Your task to perform on an android device: turn off smart reply in the gmail app Image 0: 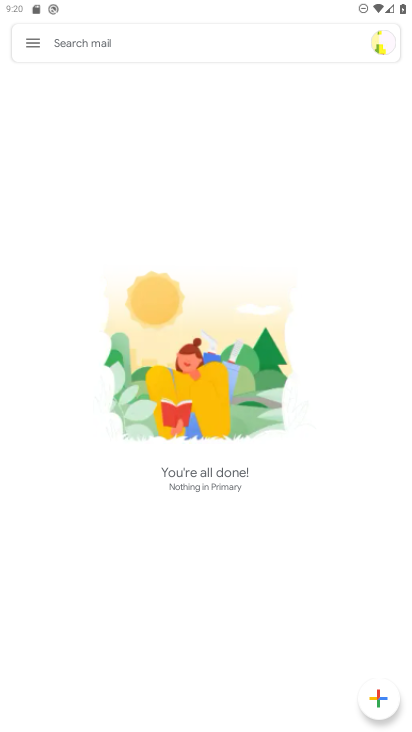
Step 0: press home button
Your task to perform on an android device: turn off smart reply in the gmail app Image 1: 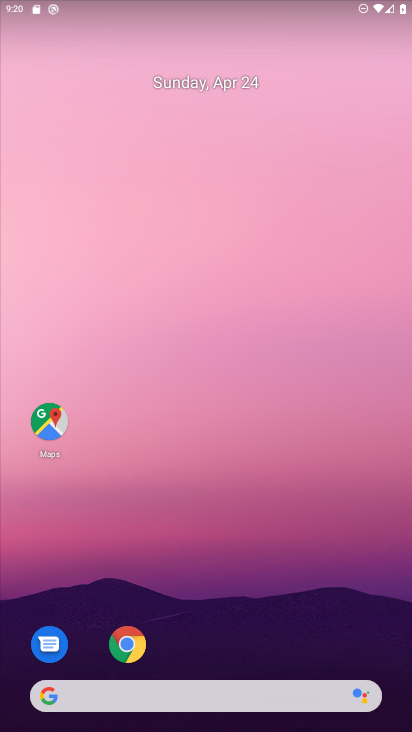
Step 1: drag from (223, 663) to (149, 24)
Your task to perform on an android device: turn off smart reply in the gmail app Image 2: 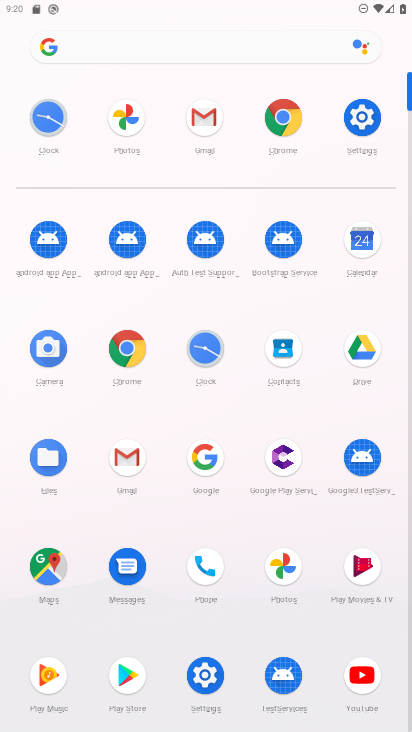
Step 2: click (127, 467)
Your task to perform on an android device: turn off smart reply in the gmail app Image 3: 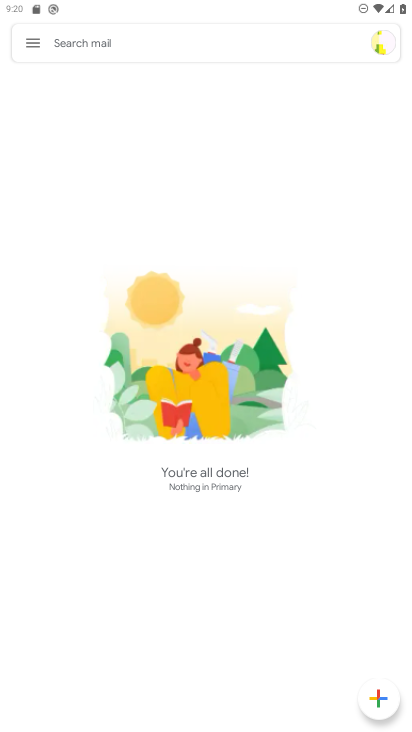
Step 3: drag from (25, 42) to (28, 239)
Your task to perform on an android device: turn off smart reply in the gmail app Image 4: 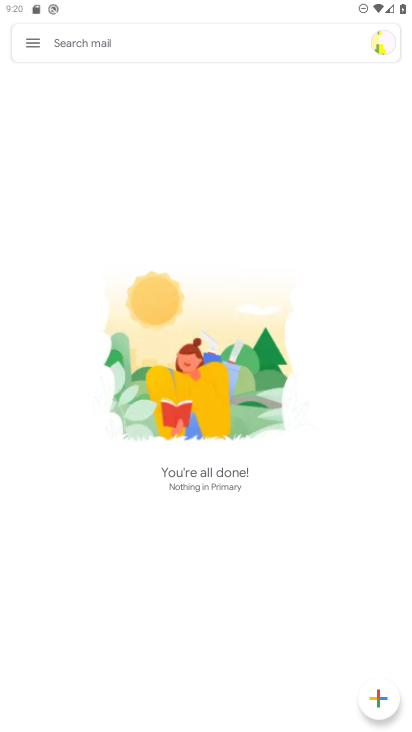
Step 4: click (35, 50)
Your task to perform on an android device: turn off smart reply in the gmail app Image 5: 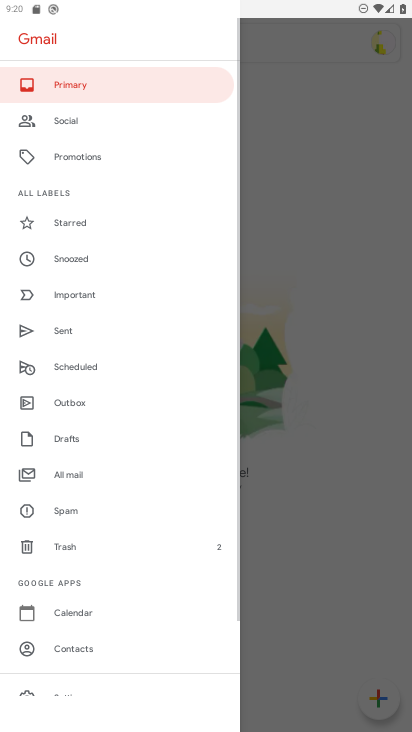
Step 5: drag from (60, 636) to (41, 252)
Your task to perform on an android device: turn off smart reply in the gmail app Image 6: 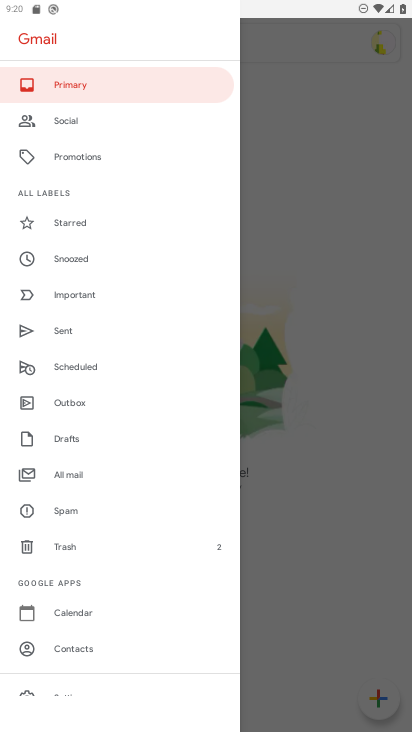
Step 6: click (49, 679)
Your task to perform on an android device: turn off smart reply in the gmail app Image 7: 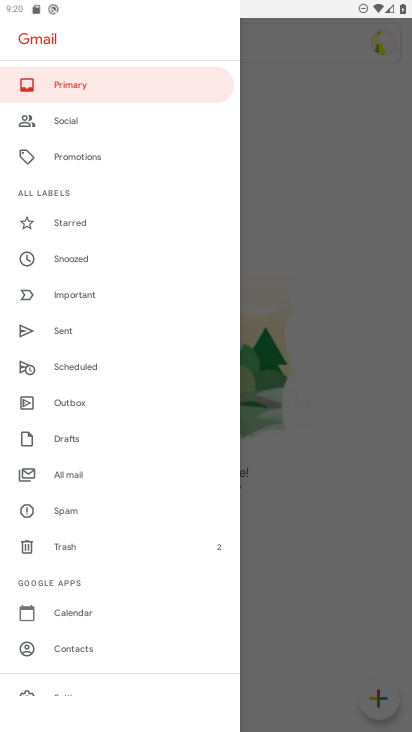
Step 7: click (27, 686)
Your task to perform on an android device: turn off smart reply in the gmail app Image 8: 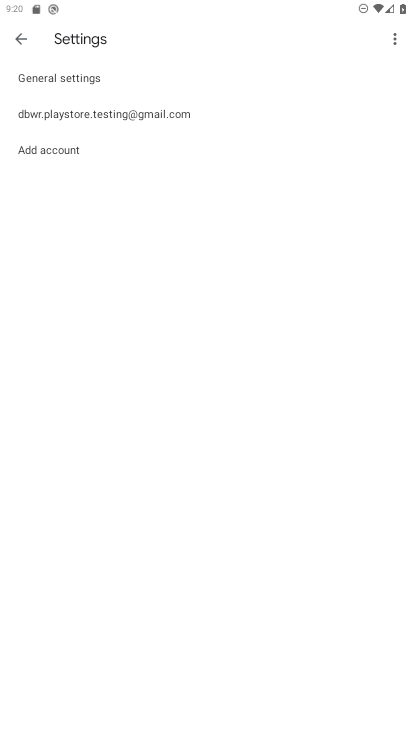
Step 8: click (106, 117)
Your task to perform on an android device: turn off smart reply in the gmail app Image 9: 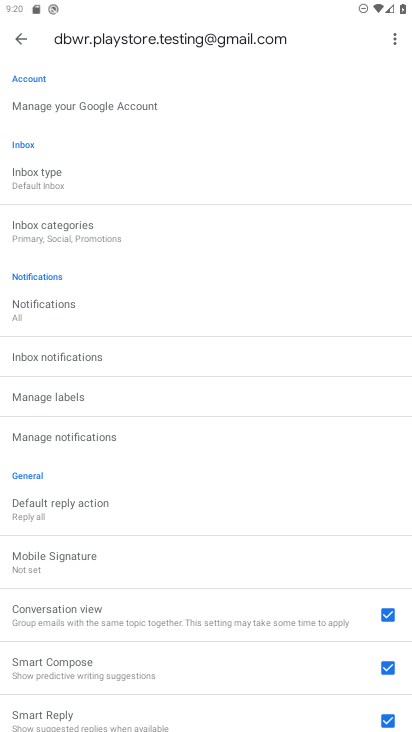
Step 9: drag from (175, 640) to (168, 355)
Your task to perform on an android device: turn off smart reply in the gmail app Image 10: 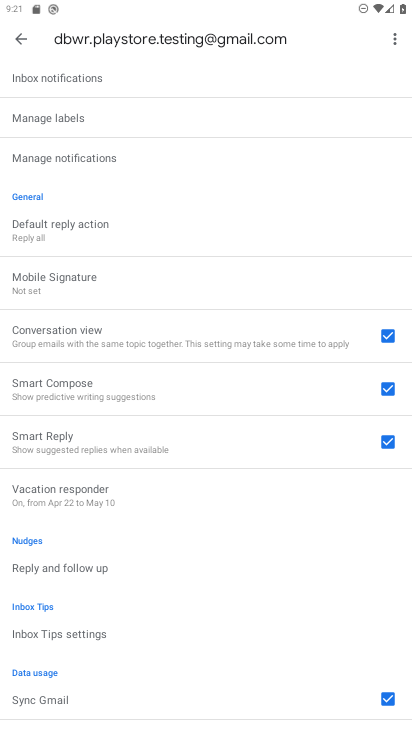
Step 10: click (382, 437)
Your task to perform on an android device: turn off smart reply in the gmail app Image 11: 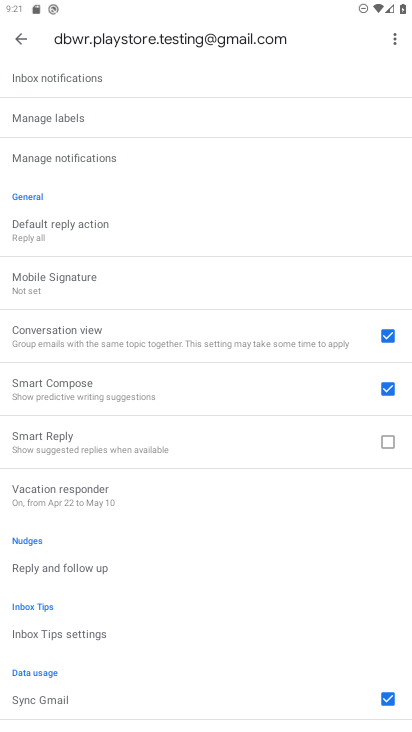
Step 11: task complete